Your task to perform on an android device: Turn off the flashlight Image 0: 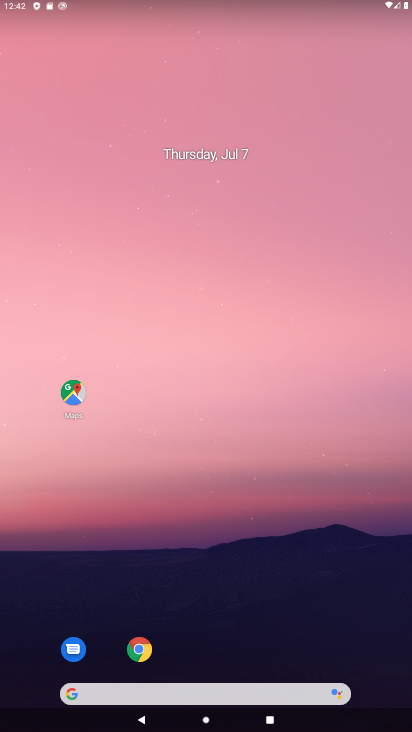
Step 0: drag from (228, 645) to (153, 100)
Your task to perform on an android device: Turn off the flashlight Image 1: 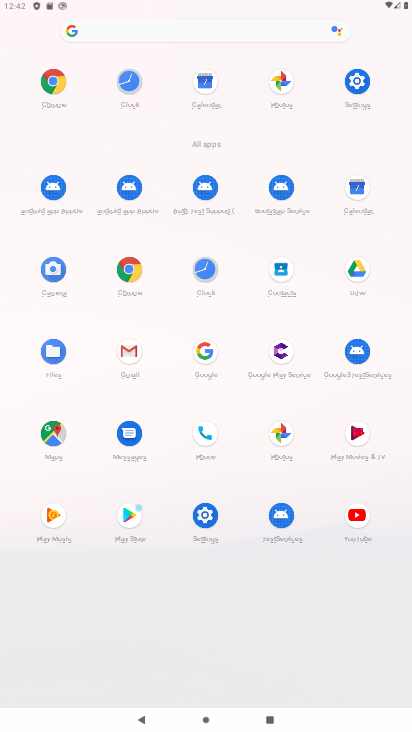
Step 1: click (360, 80)
Your task to perform on an android device: Turn off the flashlight Image 2: 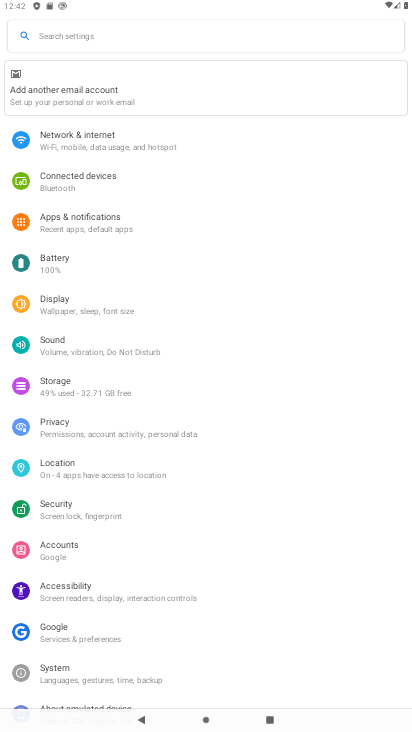
Step 2: task complete